Your task to perform on an android device: change notification settings in the gmail app Image 0: 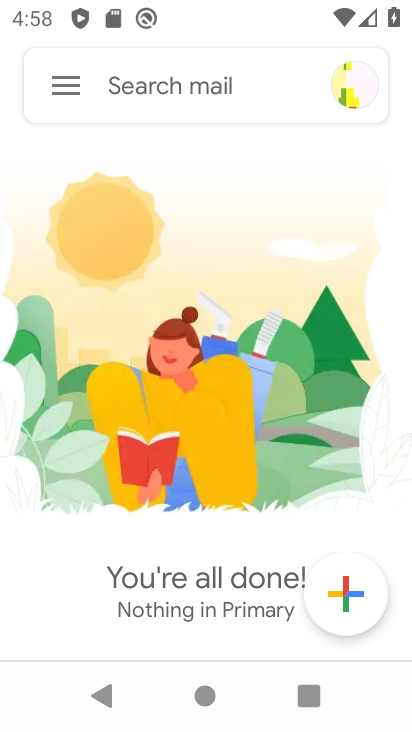
Step 0: click (55, 102)
Your task to perform on an android device: change notification settings in the gmail app Image 1: 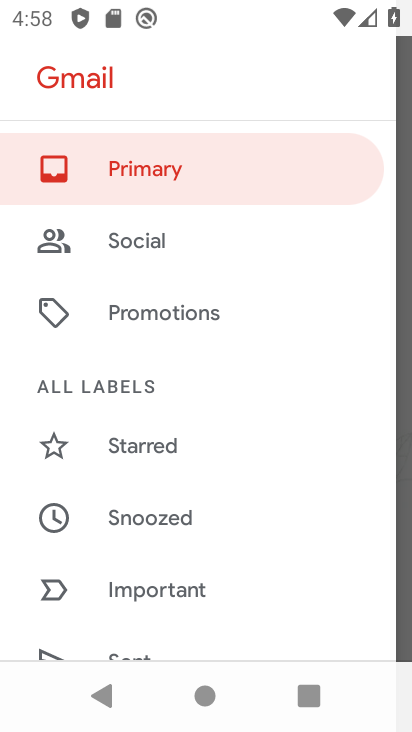
Step 1: drag from (234, 581) to (208, 127)
Your task to perform on an android device: change notification settings in the gmail app Image 2: 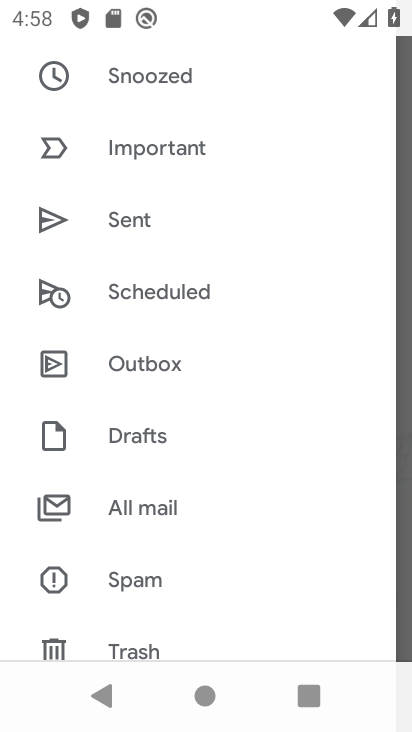
Step 2: drag from (306, 588) to (266, 230)
Your task to perform on an android device: change notification settings in the gmail app Image 3: 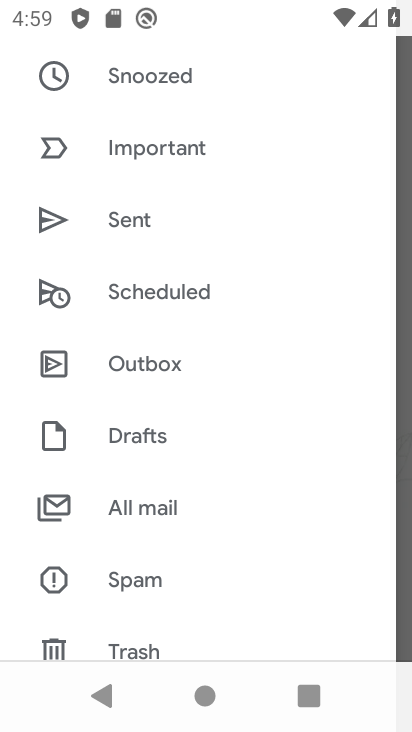
Step 3: drag from (268, 504) to (264, 76)
Your task to perform on an android device: change notification settings in the gmail app Image 4: 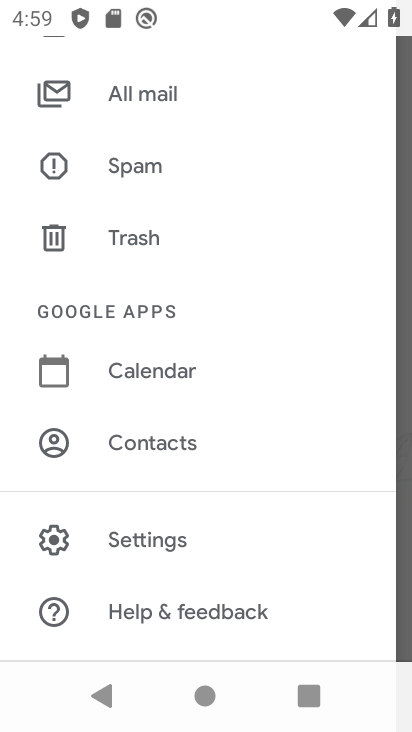
Step 4: click (223, 555)
Your task to perform on an android device: change notification settings in the gmail app Image 5: 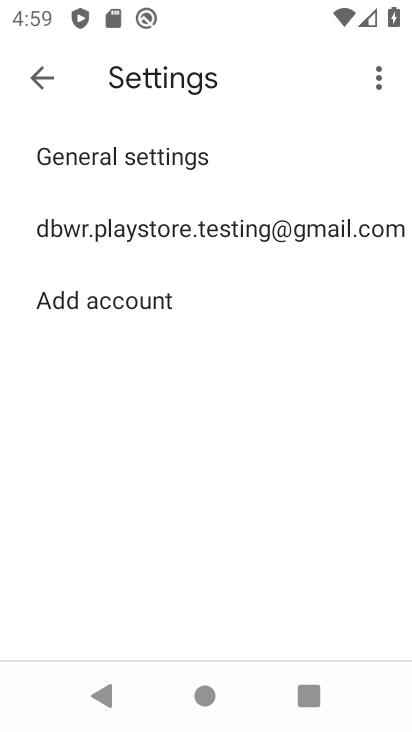
Step 5: click (249, 225)
Your task to perform on an android device: change notification settings in the gmail app Image 6: 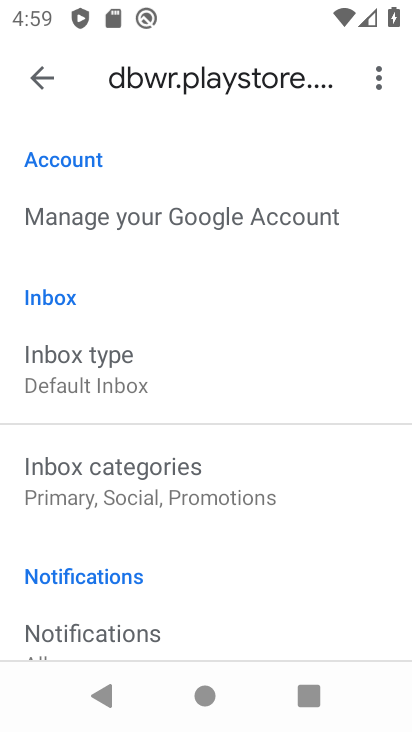
Step 6: drag from (304, 549) to (278, 342)
Your task to perform on an android device: change notification settings in the gmail app Image 7: 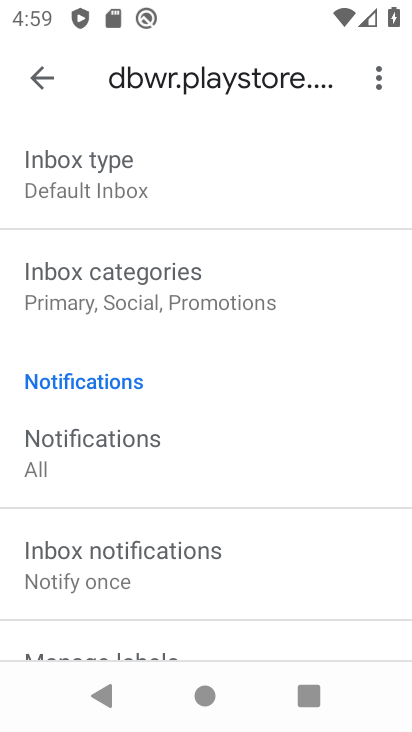
Step 7: drag from (304, 611) to (276, 178)
Your task to perform on an android device: change notification settings in the gmail app Image 8: 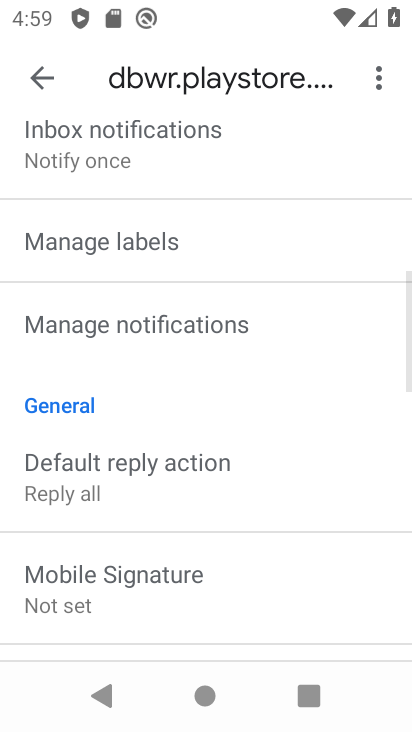
Step 8: click (246, 345)
Your task to perform on an android device: change notification settings in the gmail app Image 9: 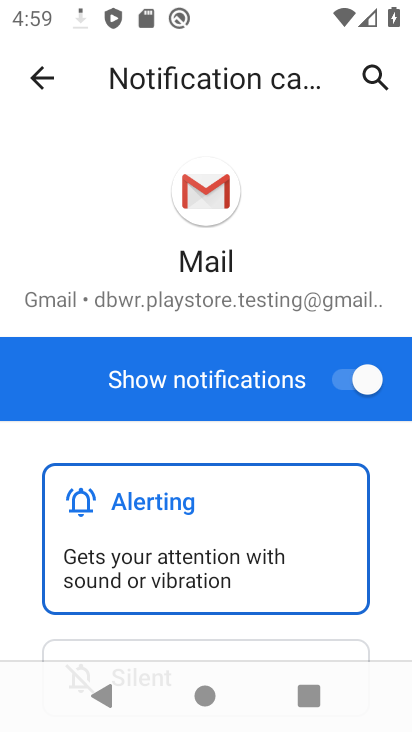
Step 9: click (246, 345)
Your task to perform on an android device: change notification settings in the gmail app Image 10: 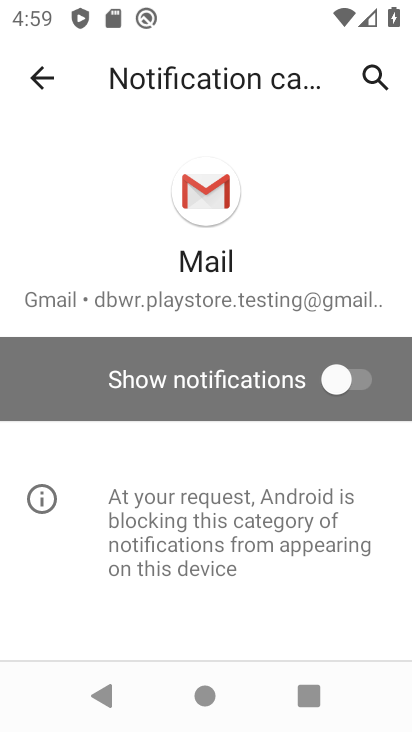
Step 10: task complete